Your task to perform on an android device: open a bookmark in the chrome app Image 0: 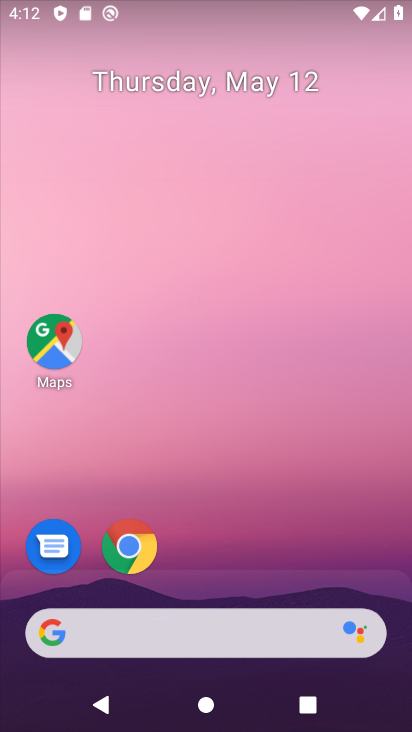
Step 0: click (150, 563)
Your task to perform on an android device: open a bookmark in the chrome app Image 1: 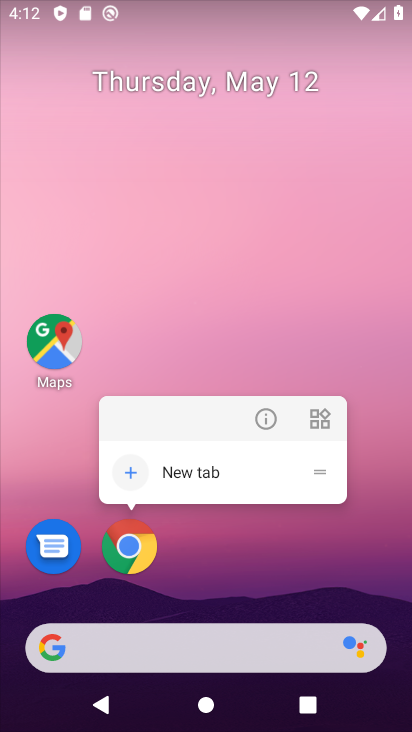
Step 1: click (133, 531)
Your task to perform on an android device: open a bookmark in the chrome app Image 2: 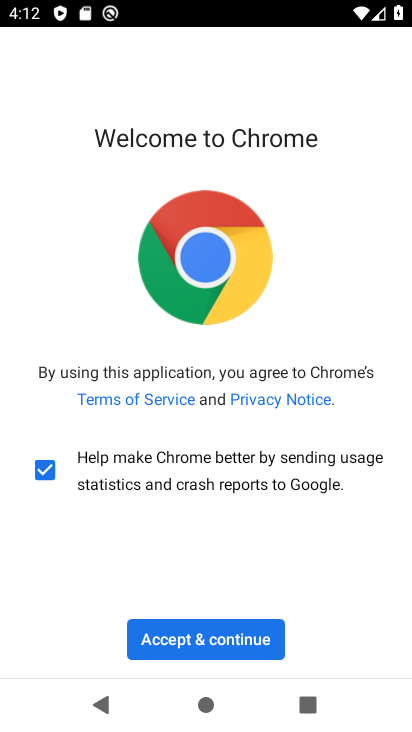
Step 2: click (212, 650)
Your task to perform on an android device: open a bookmark in the chrome app Image 3: 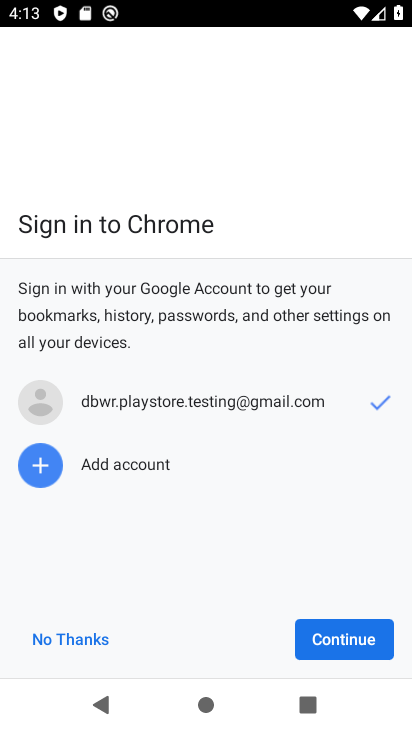
Step 3: click (367, 635)
Your task to perform on an android device: open a bookmark in the chrome app Image 4: 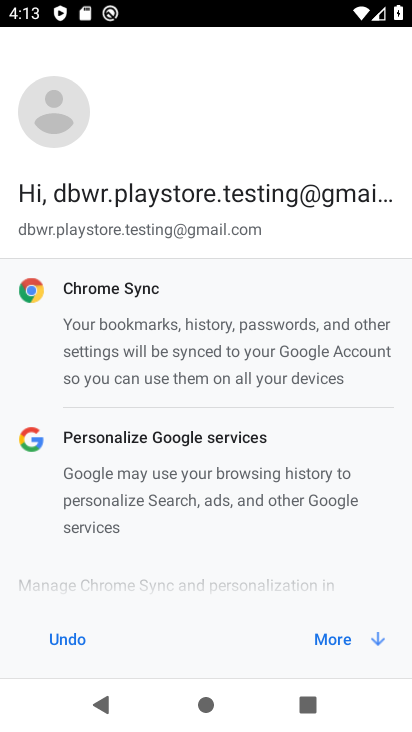
Step 4: click (356, 633)
Your task to perform on an android device: open a bookmark in the chrome app Image 5: 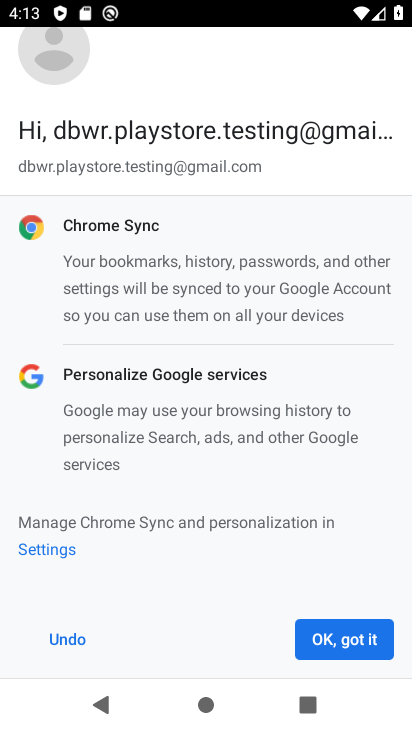
Step 5: click (335, 634)
Your task to perform on an android device: open a bookmark in the chrome app Image 6: 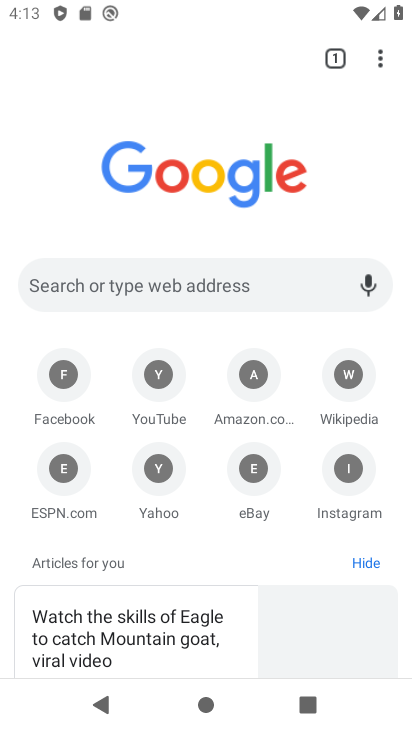
Step 6: task complete